Your task to perform on an android device: toggle notifications settings in the gmail app Image 0: 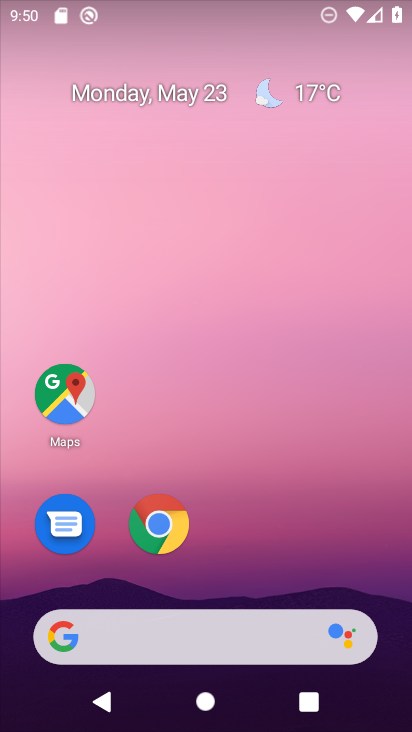
Step 0: drag from (247, 569) to (250, 214)
Your task to perform on an android device: toggle notifications settings in the gmail app Image 1: 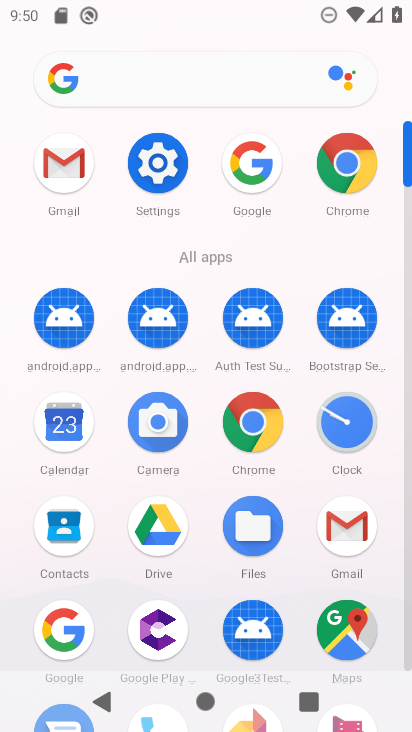
Step 1: click (336, 527)
Your task to perform on an android device: toggle notifications settings in the gmail app Image 2: 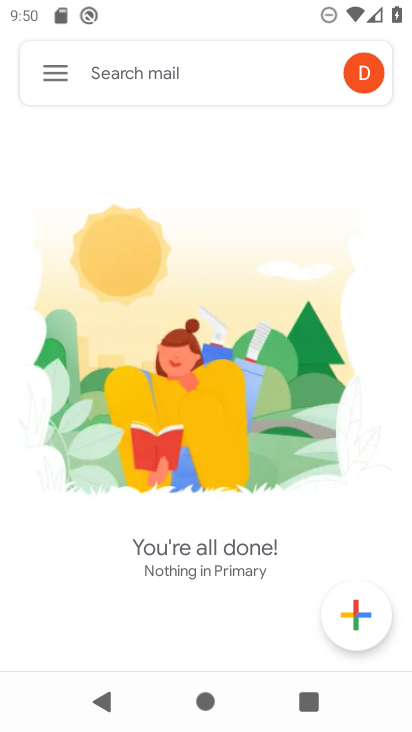
Step 2: click (50, 63)
Your task to perform on an android device: toggle notifications settings in the gmail app Image 3: 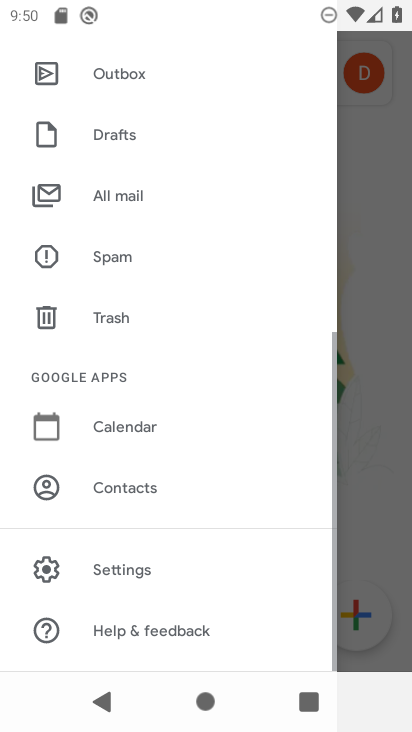
Step 3: drag from (176, 600) to (197, 457)
Your task to perform on an android device: toggle notifications settings in the gmail app Image 4: 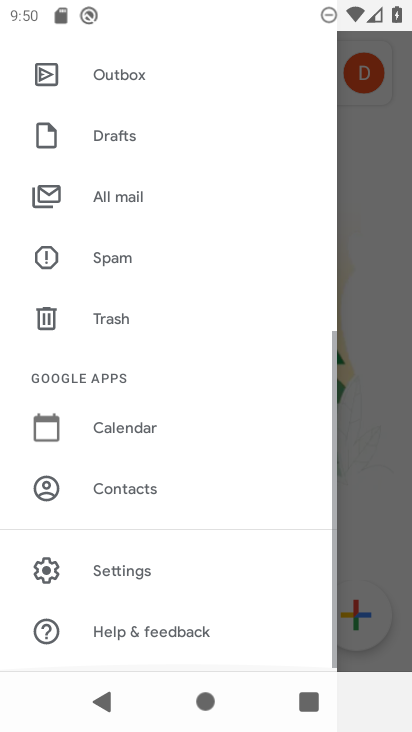
Step 4: click (144, 557)
Your task to perform on an android device: toggle notifications settings in the gmail app Image 5: 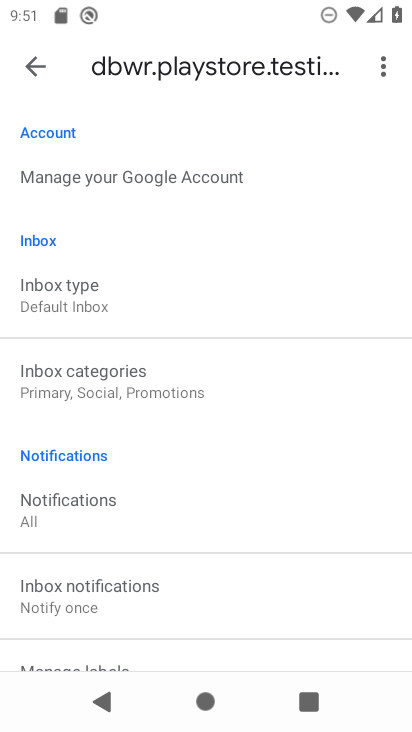
Step 5: drag from (179, 636) to (169, 476)
Your task to perform on an android device: toggle notifications settings in the gmail app Image 6: 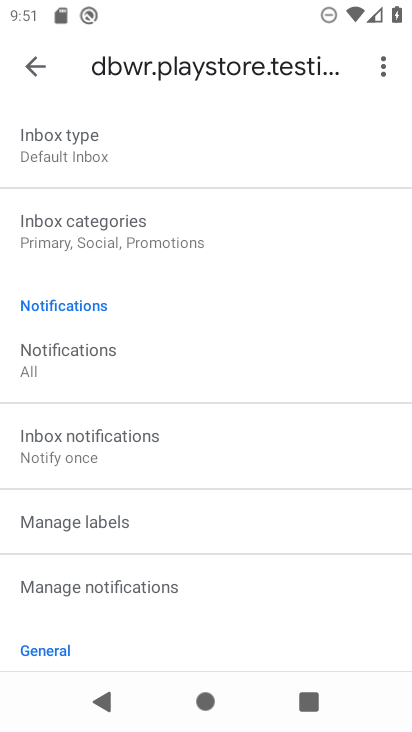
Step 6: click (133, 566)
Your task to perform on an android device: toggle notifications settings in the gmail app Image 7: 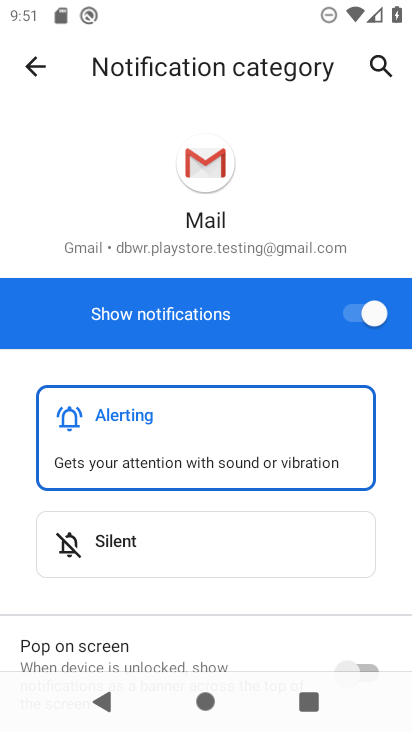
Step 7: click (349, 316)
Your task to perform on an android device: toggle notifications settings in the gmail app Image 8: 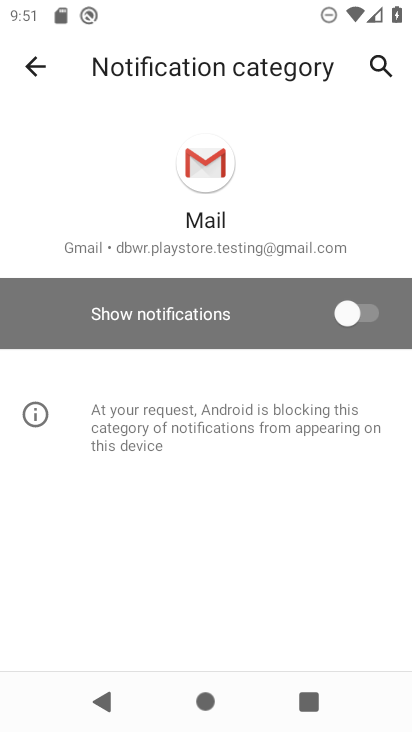
Step 8: task complete